Your task to perform on an android device: open app "AliExpress" (install if not already installed) Image 0: 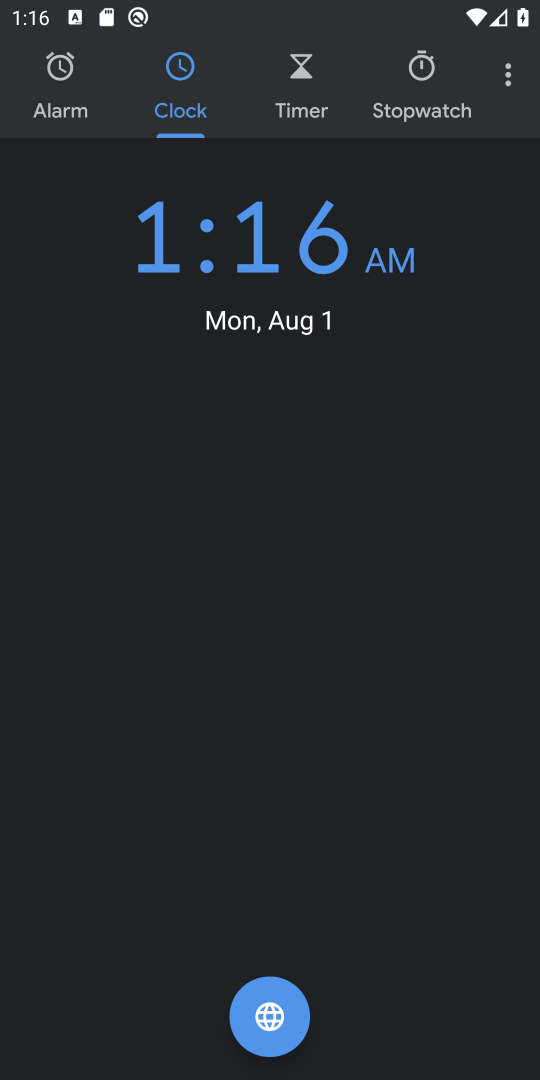
Step 0: press back button
Your task to perform on an android device: open app "AliExpress" (install if not already installed) Image 1: 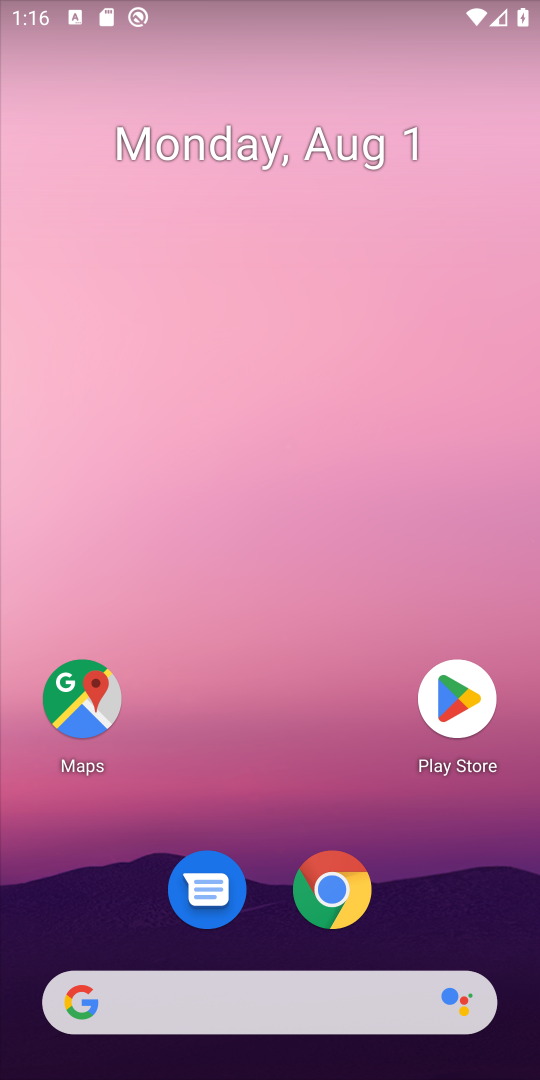
Step 1: click (446, 702)
Your task to perform on an android device: open app "AliExpress" (install if not already installed) Image 2: 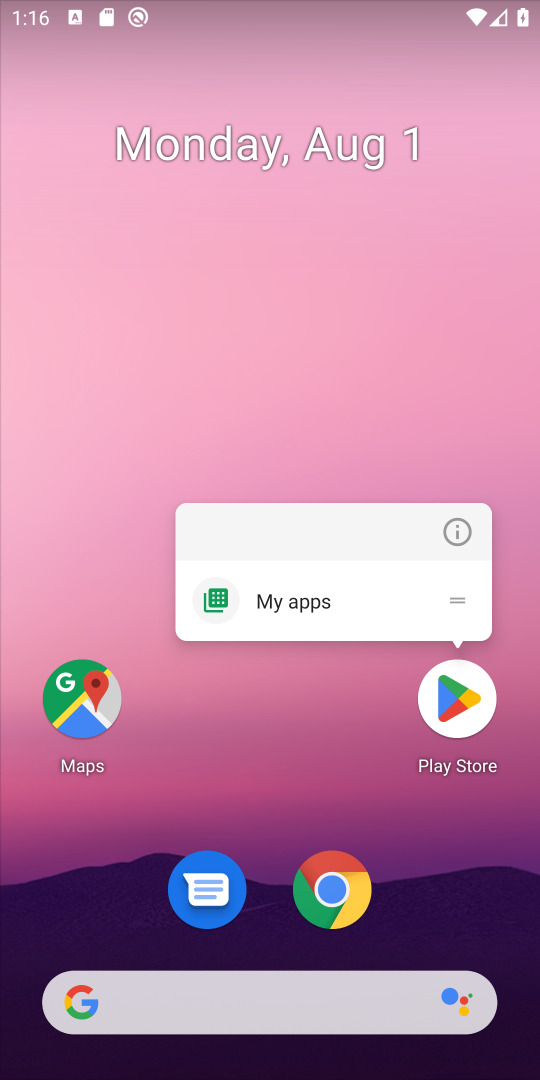
Step 2: click (440, 698)
Your task to perform on an android device: open app "AliExpress" (install if not already installed) Image 3: 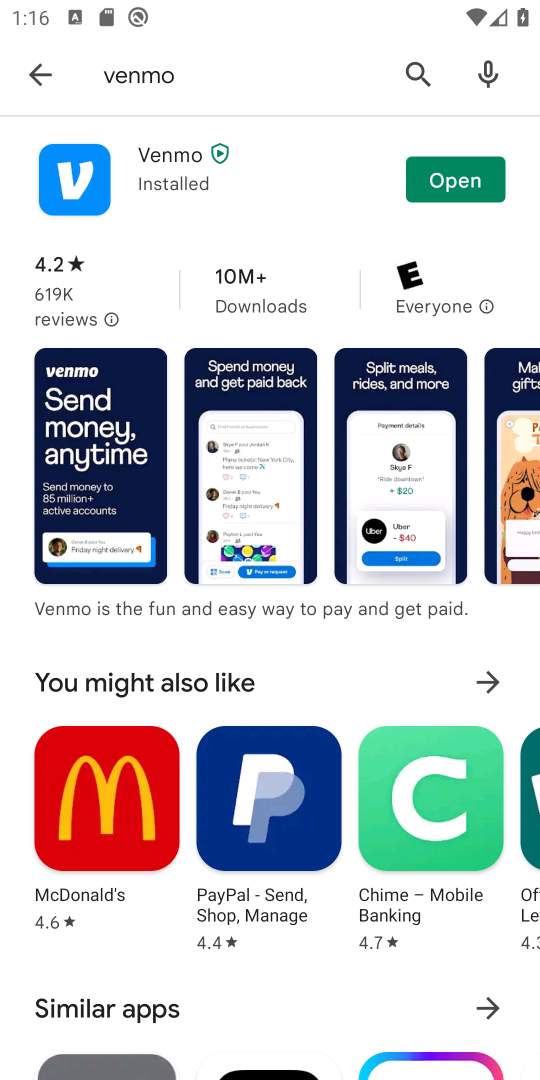
Step 3: click (435, 78)
Your task to perform on an android device: open app "AliExpress" (install if not already installed) Image 4: 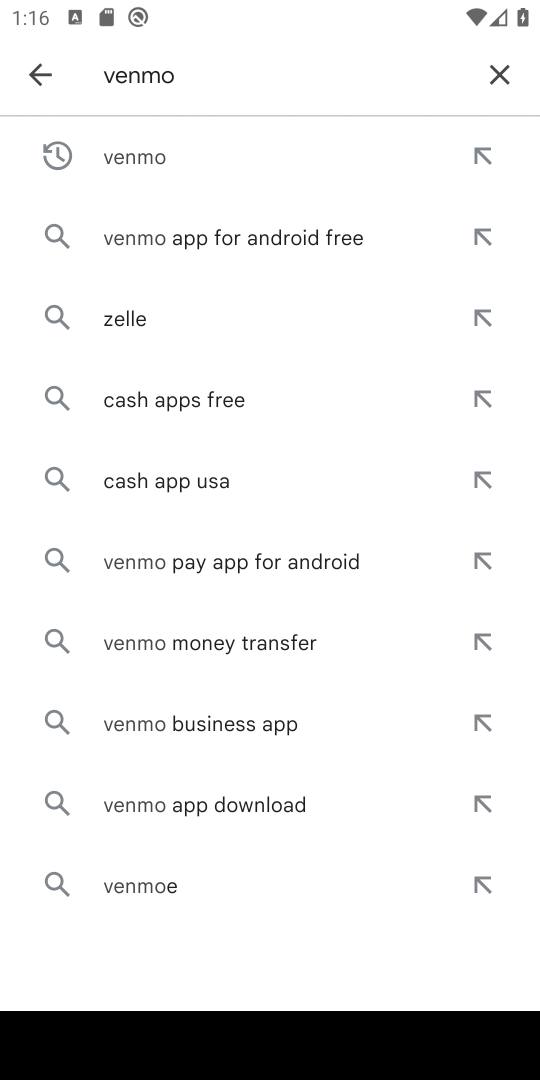
Step 4: click (493, 93)
Your task to perform on an android device: open app "AliExpress" (install if not already installed) Image 5: 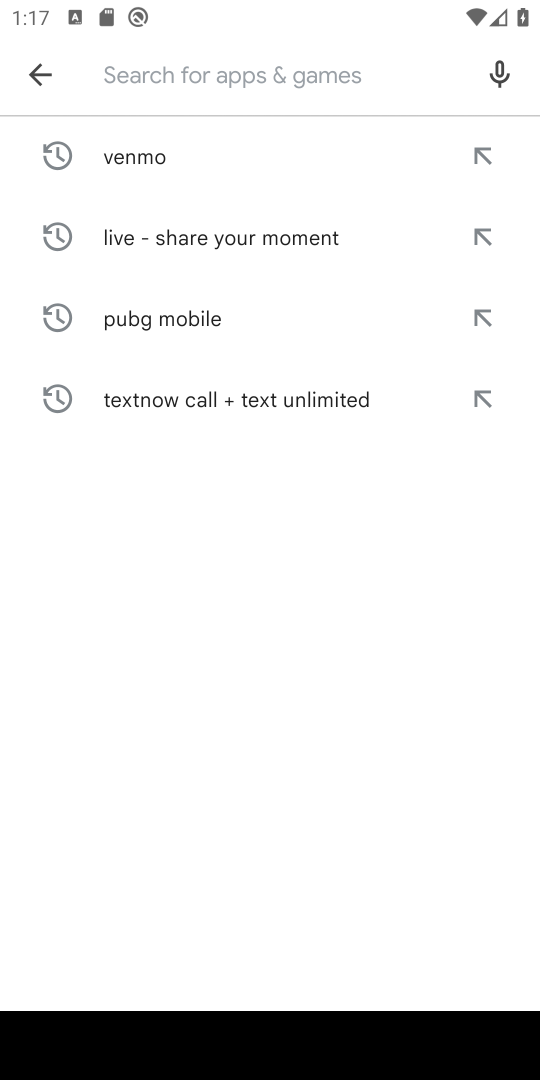
Step 5: type "AliExpress"
Your task to perform on an android device: open app "AliExpress" (install if not already installed) Image 6: 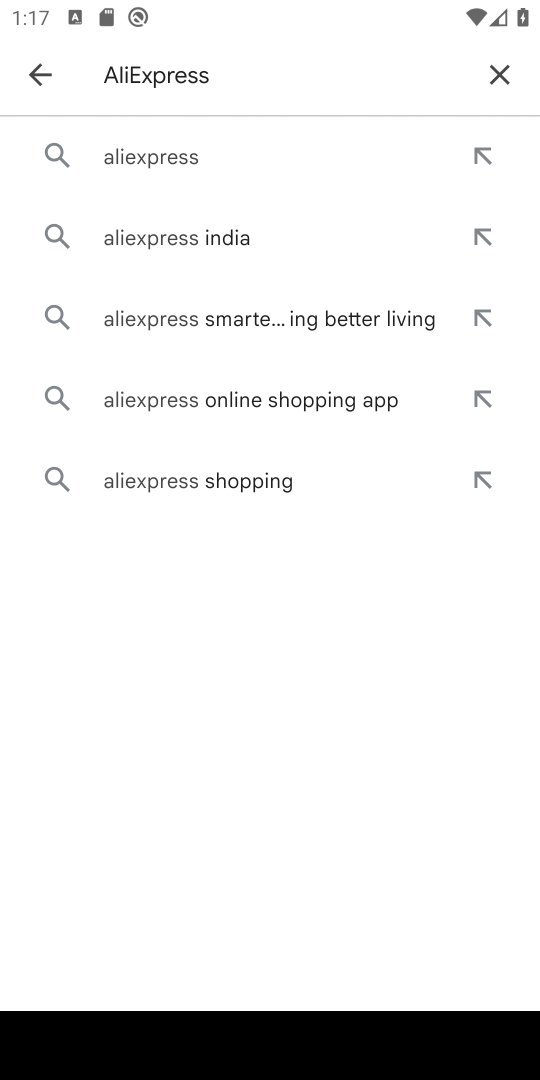
Step 6: click (201, 150)
Your task to perform on an android device: open app "AliExpress" (install if not already installed) Image 7: 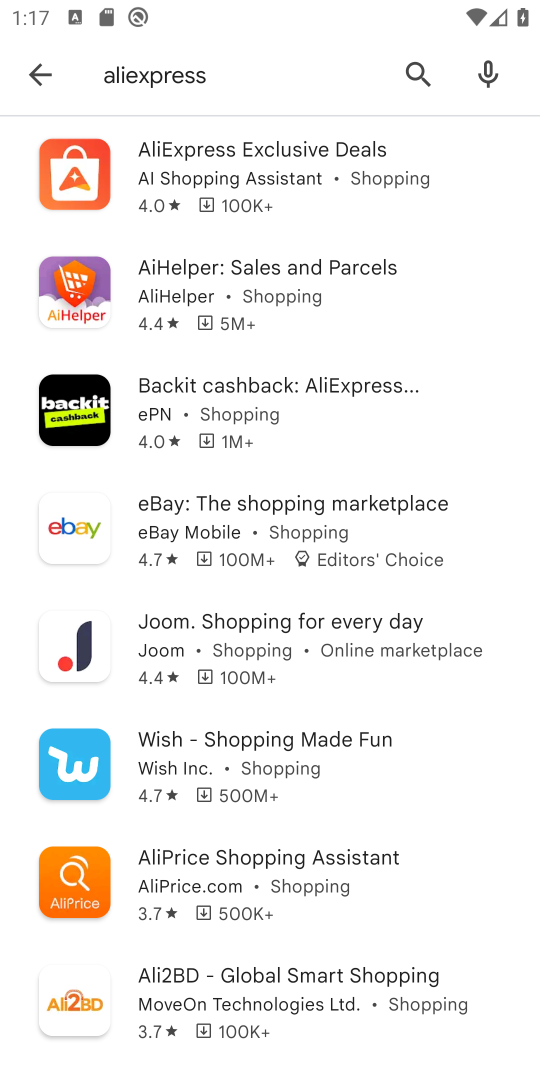
Step 7: click (289, 172)
Your task to perform on an android device: open app "AliExpress" (install if not already installed) Image 8: 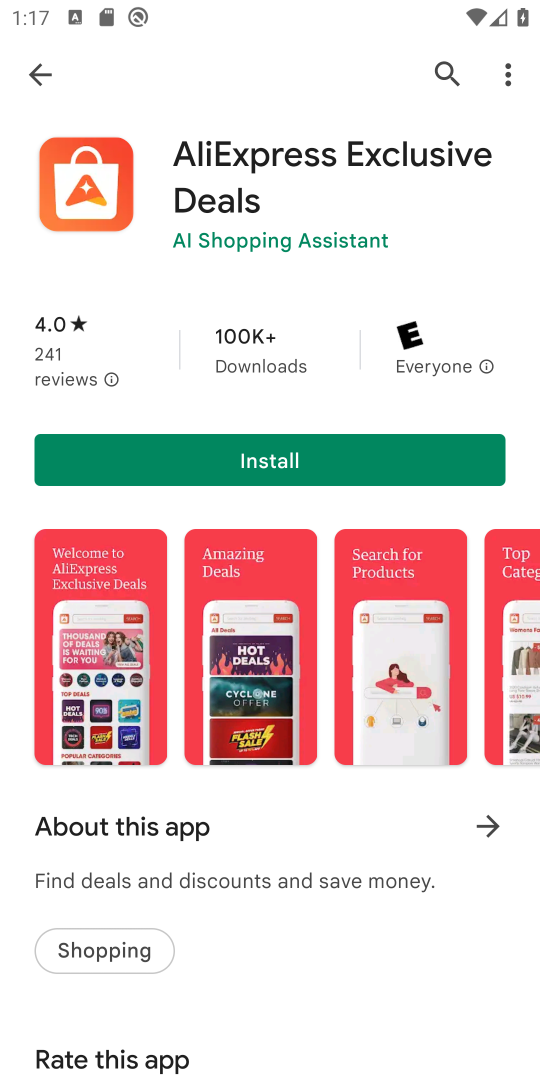
Step 8: click (242, 458)
Your task to perform on an android device: open app "AliExpress" (install if not already installed) Image 9: 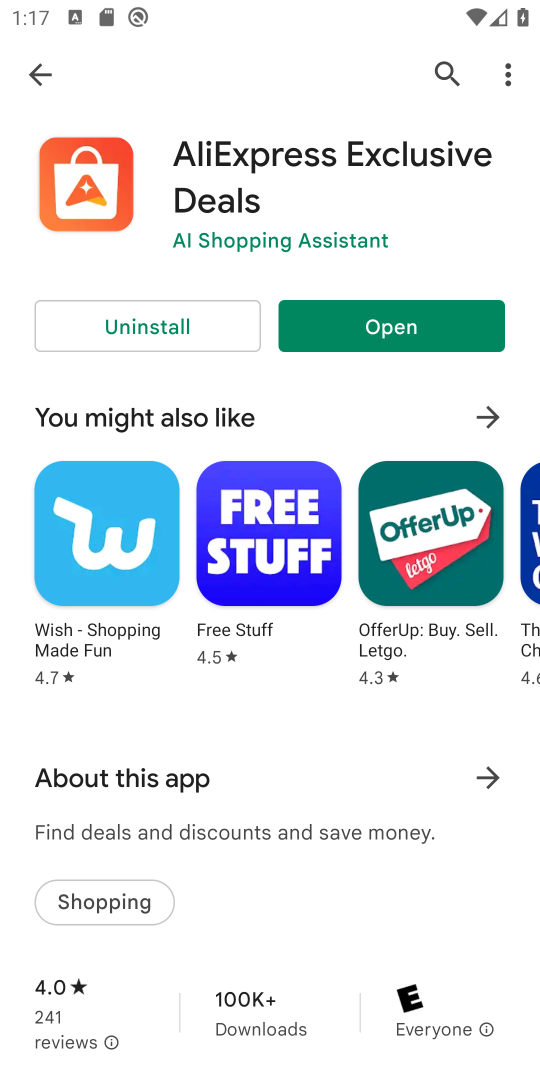
Step 9: click (423, 331)
Your task to perform on an android device: open app "AliExpress" (install if not already installed) Image 10: 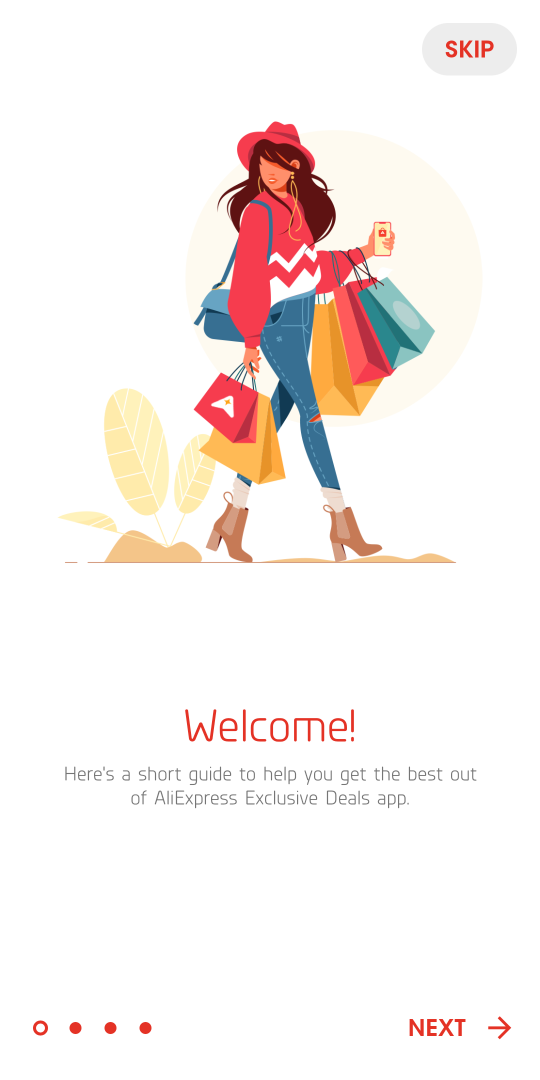
Step 10: task complete